Your task to perform on an android device: set an alarm Image 0: 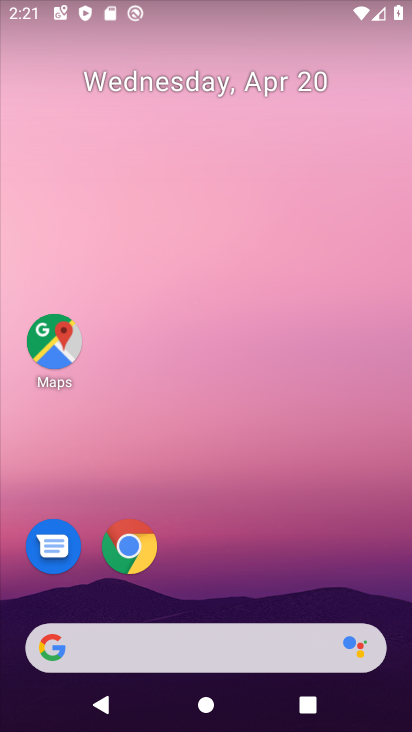
Step 0: drag from (275, 658) to (170, 159)
Your task to perform on an android device: set an alarm Image 1: 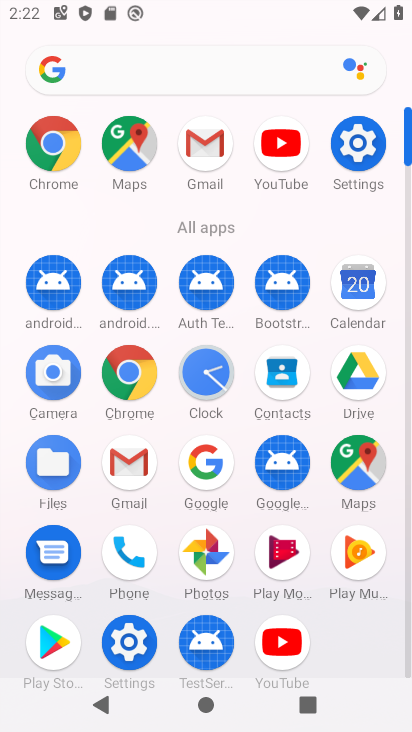
Step 1: click (214, 369)
Your task to perform on an android device: set an alarm Image 2: 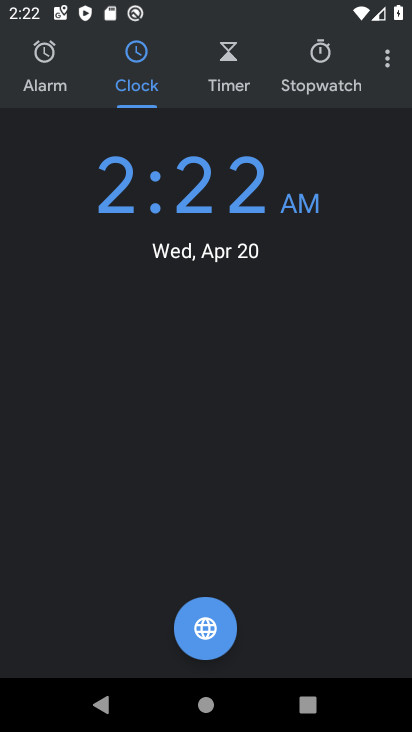
Step 2: click (68, 65)
Your task to perform on an android device: set an alarm Image 3: 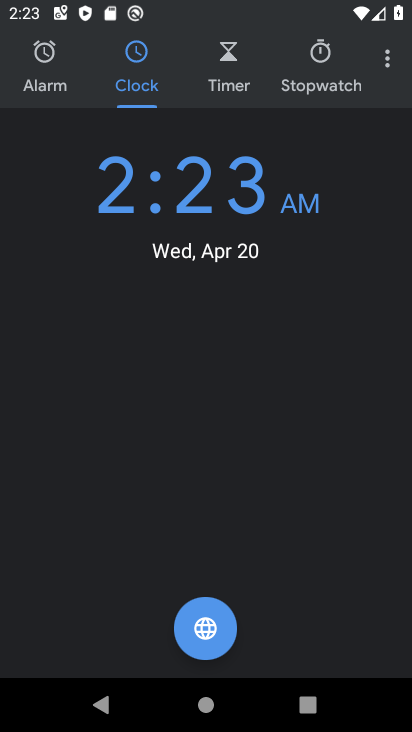
Step 3: click (63, 86)
Your task to perform on an android device: set an alarm Image 4: 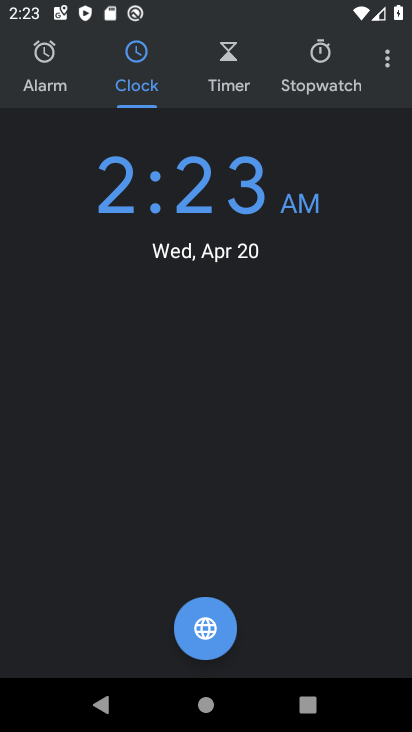
Step 4: click (63, 85)
Your task to perform on an android device: set an alarm Image 5: 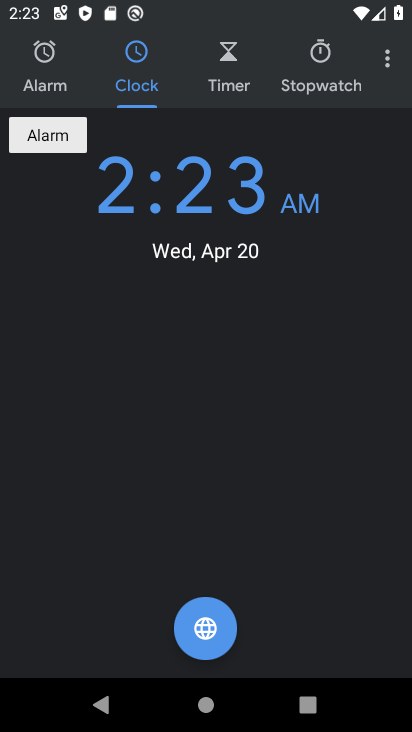
Step 5: click (63, 85)
Your task to perform on an android device: set an alarm Image 6: 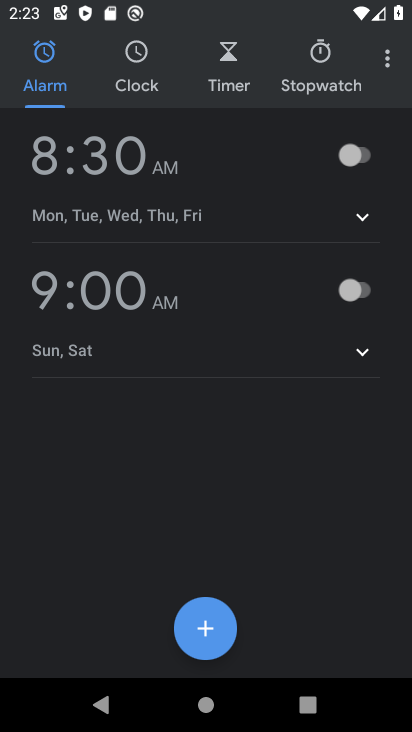
Step 6: click (124, 193)
Your task to perform on an android device: set an alarm Image 7: 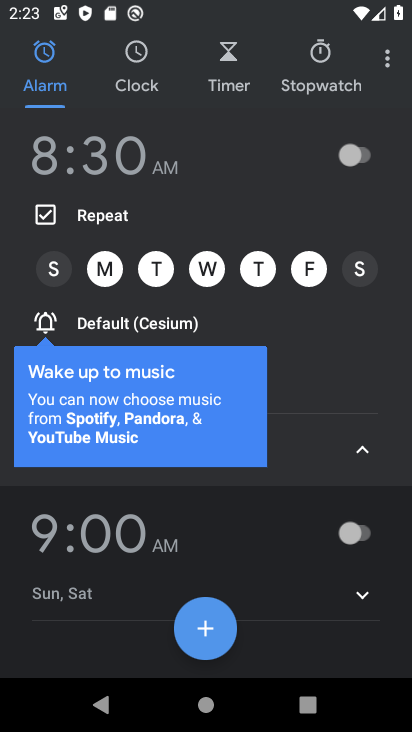
Step 7: click (350, 148)
Your task to perform on an android device: set an alarm Image 8: 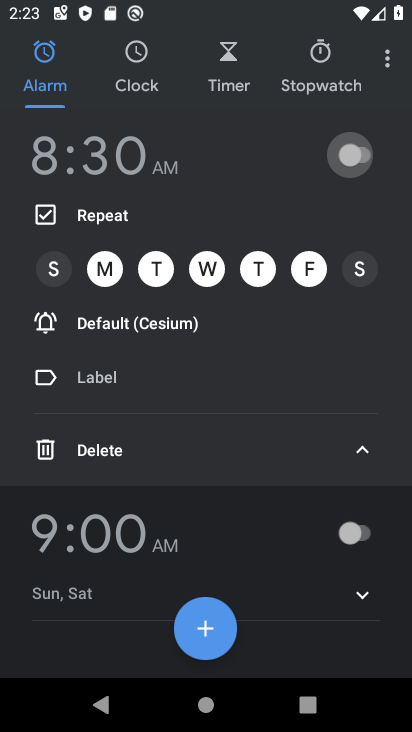
Step 8: task complete